Your task to perform on an android device: Clear all items from cart on walmart.com. Image 0: 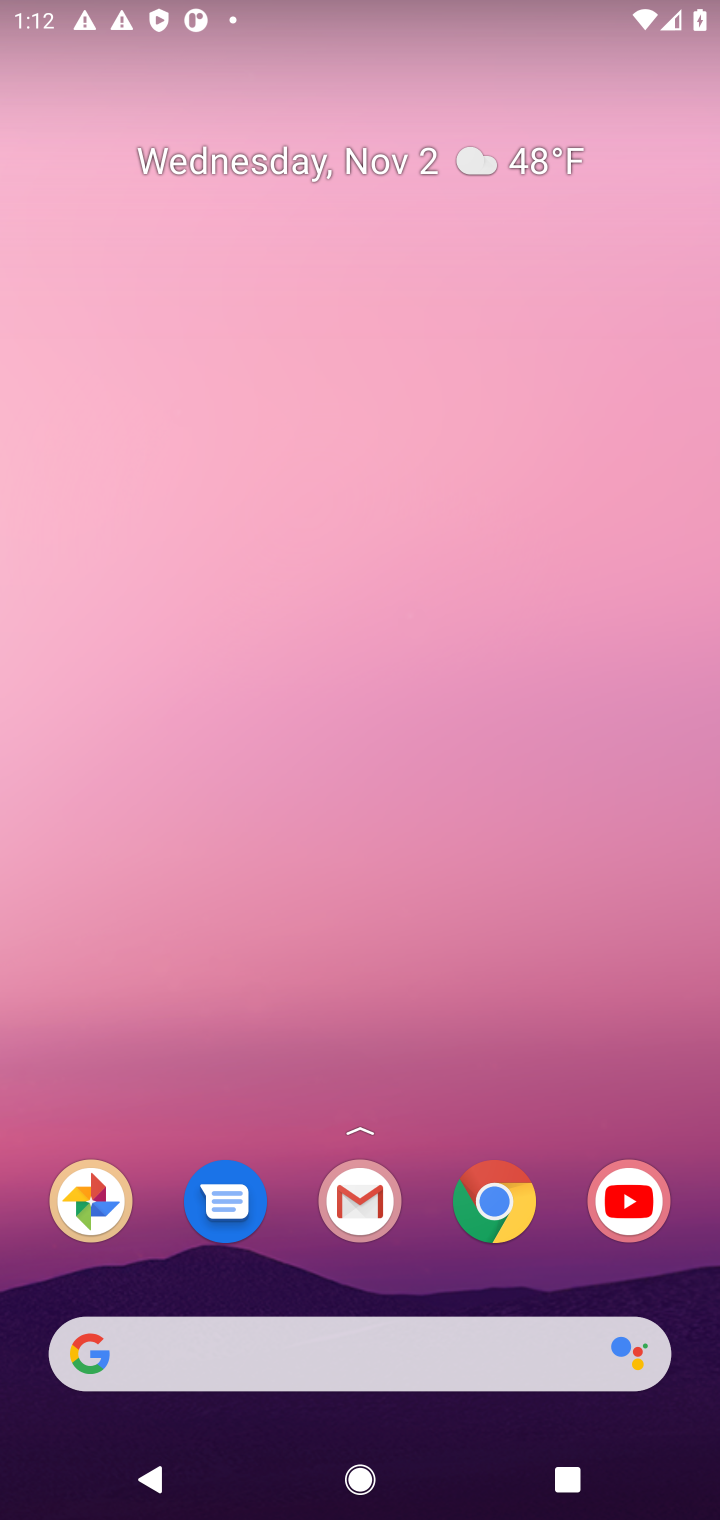
Step 0: click (499, 1215)
Your task to perform on an android device: Clear all items from cart on walmart.com. Image 1: 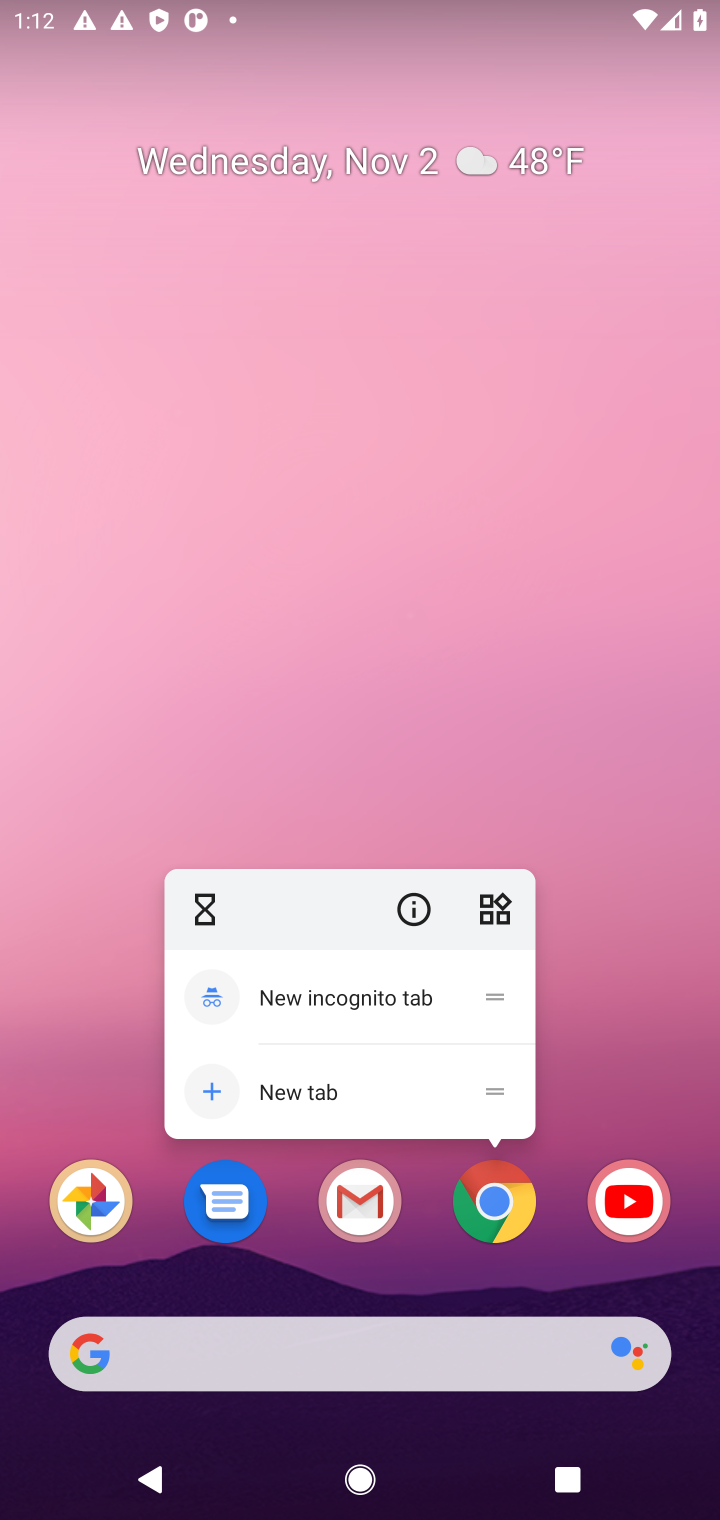
Step 1: click (499, 1215)
Your task to perform on an android device: Clear all items from cart on walmart.com. Image 2: 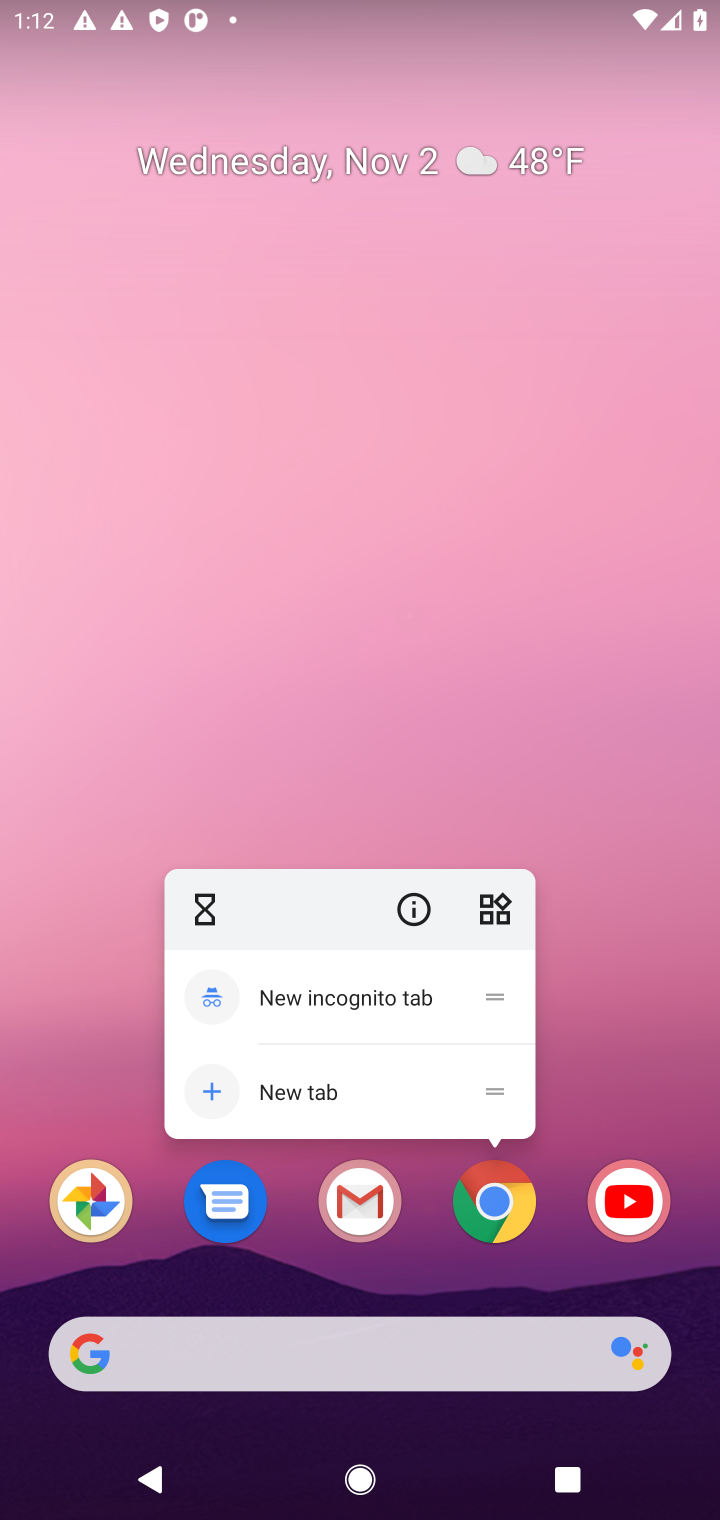
Step 2: click (499, 1215)
Your task to perform on an android device: Clear all items from cart on walmart.com. Image 3: 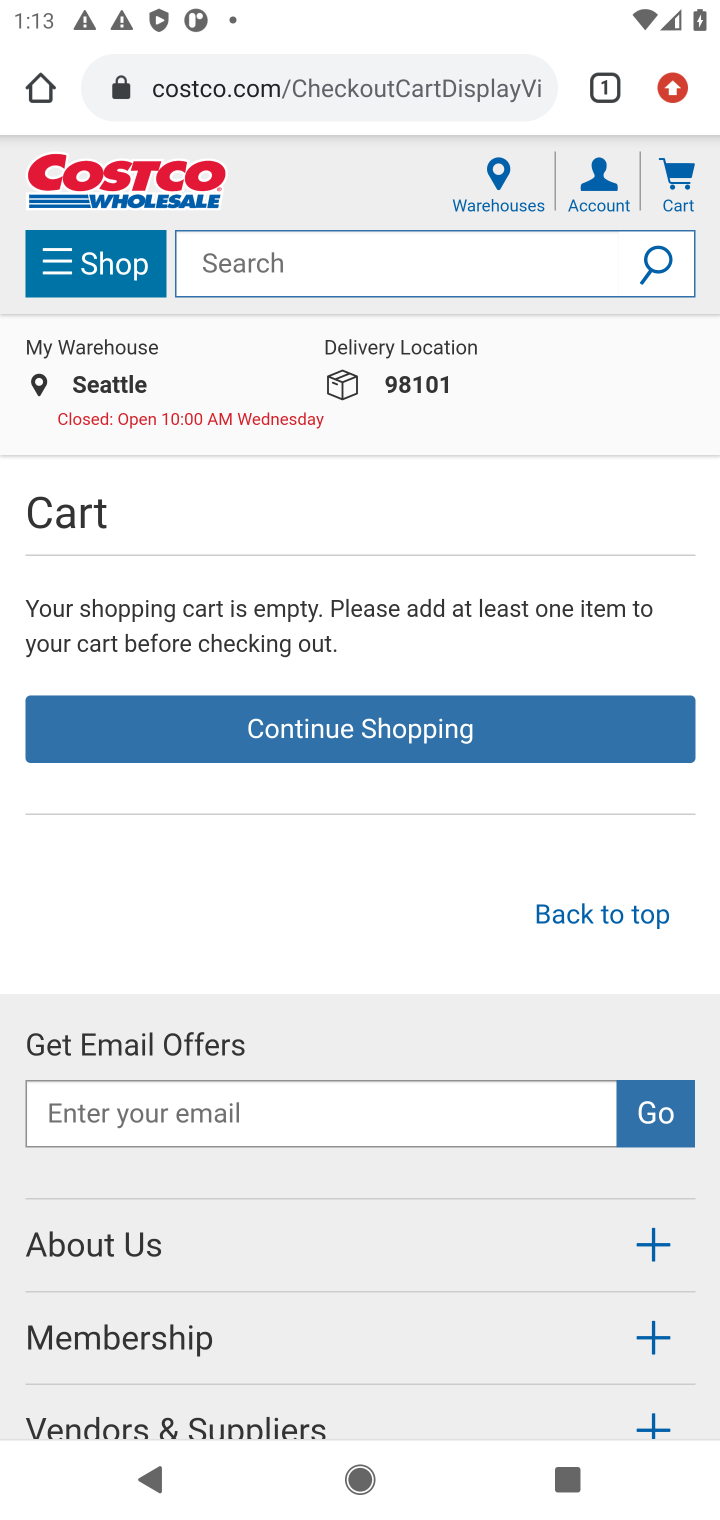
Step 3: click (370, 81)
Your task to perform on an android device: Clear all items from cart on walmart.com. Image 4: 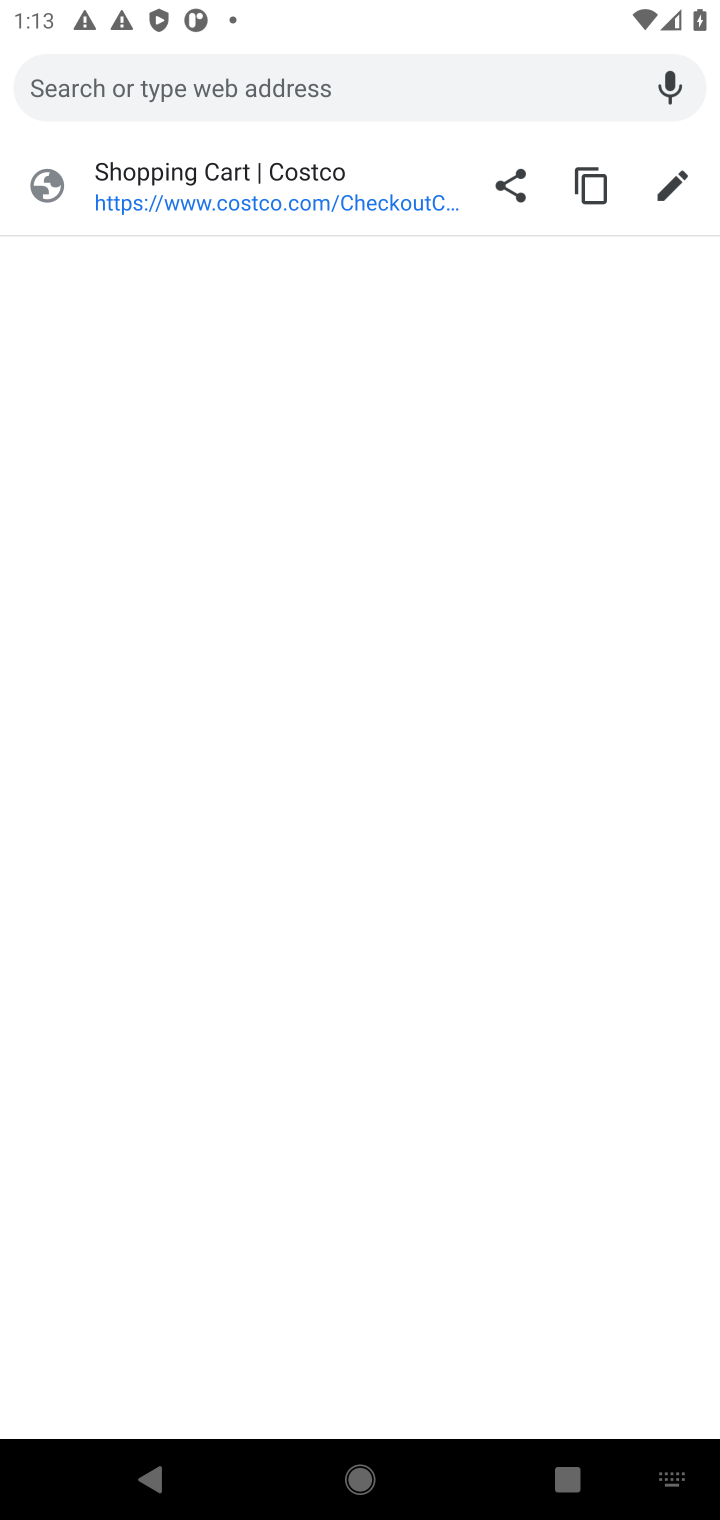
Step 4: type "walmart.com"
Your task to perform on an android device: Clear all items from cart on walmart.com. Image 5: 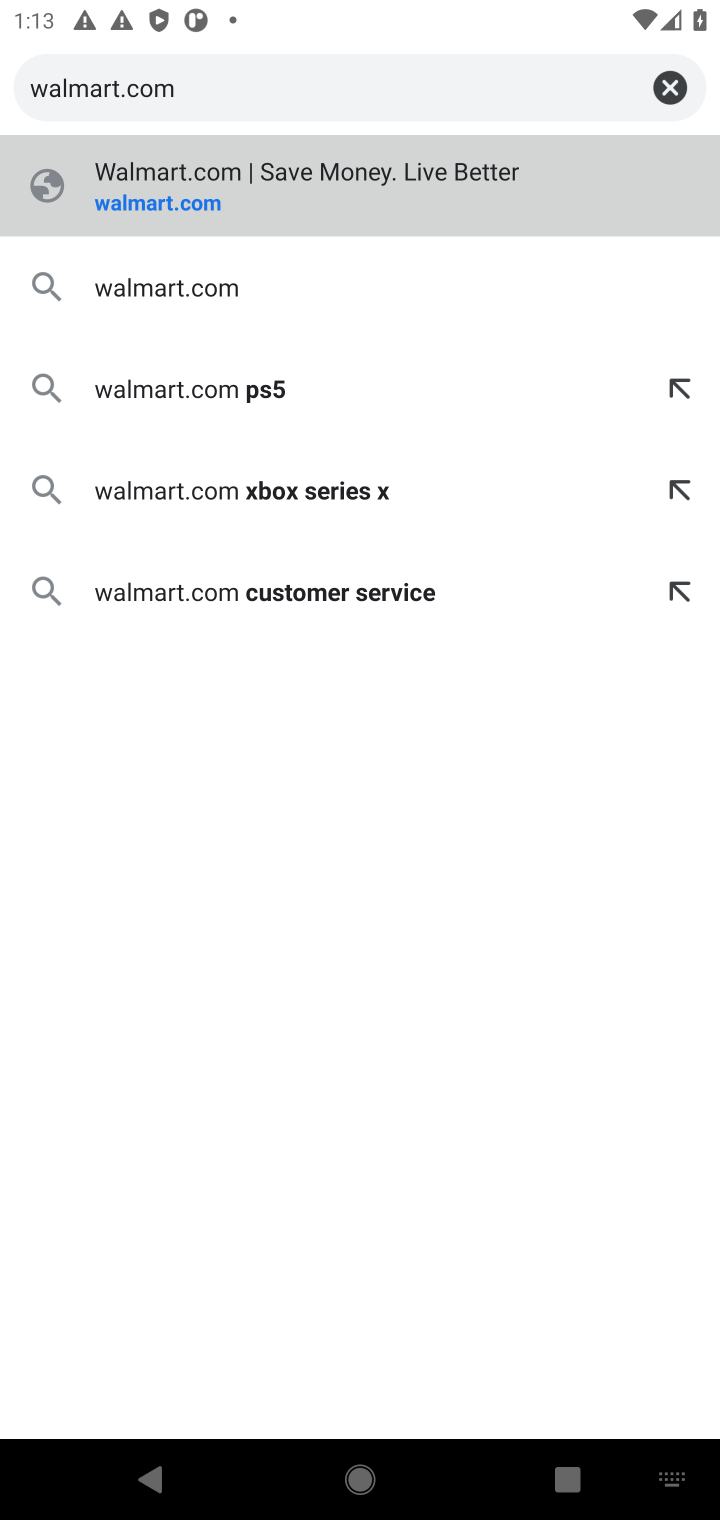
Step 5: press enter
Your task to perform on an android device: Clear all items from cart on walmart.com. Image 6: 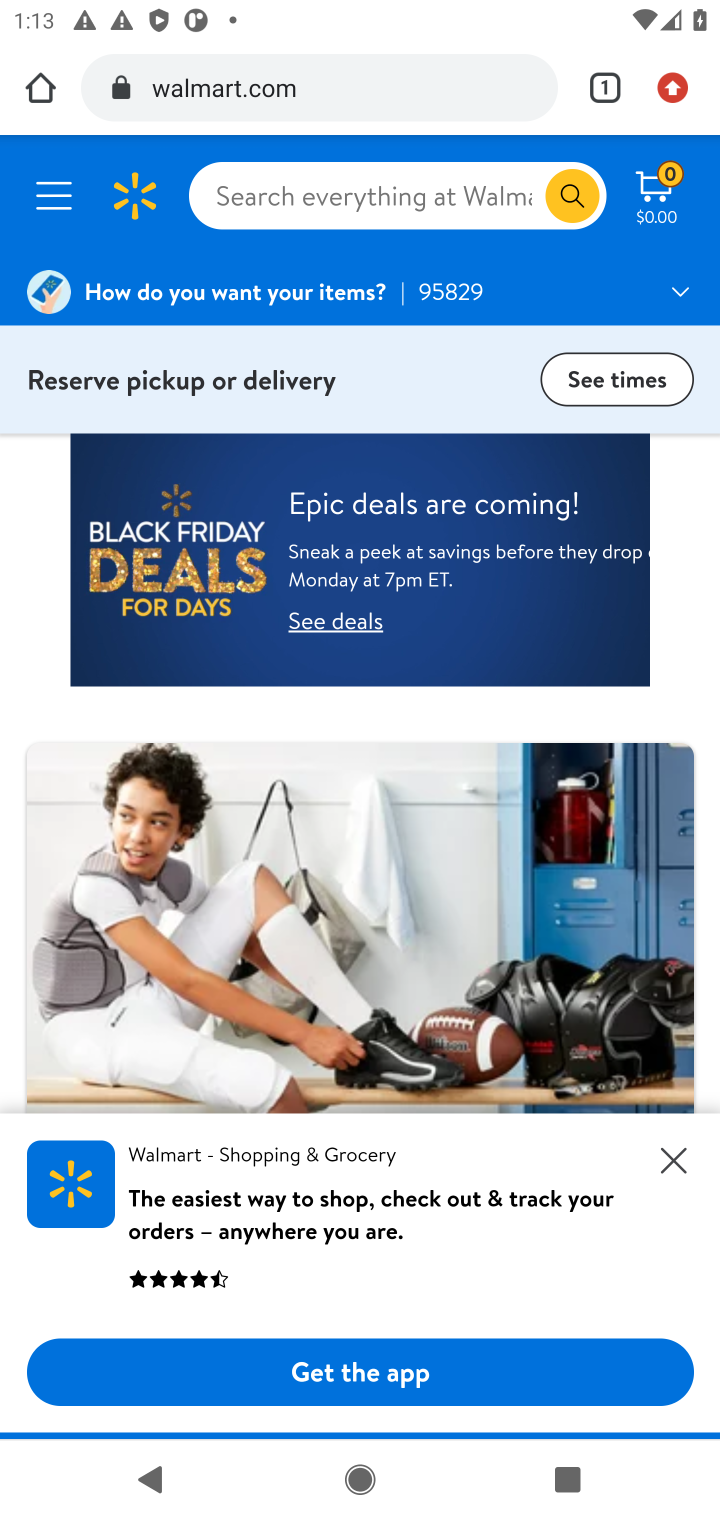
Step 6: click (649, 196)
Your task to perform on an android device: Clear all items from cart on walmart.com. Image 7: 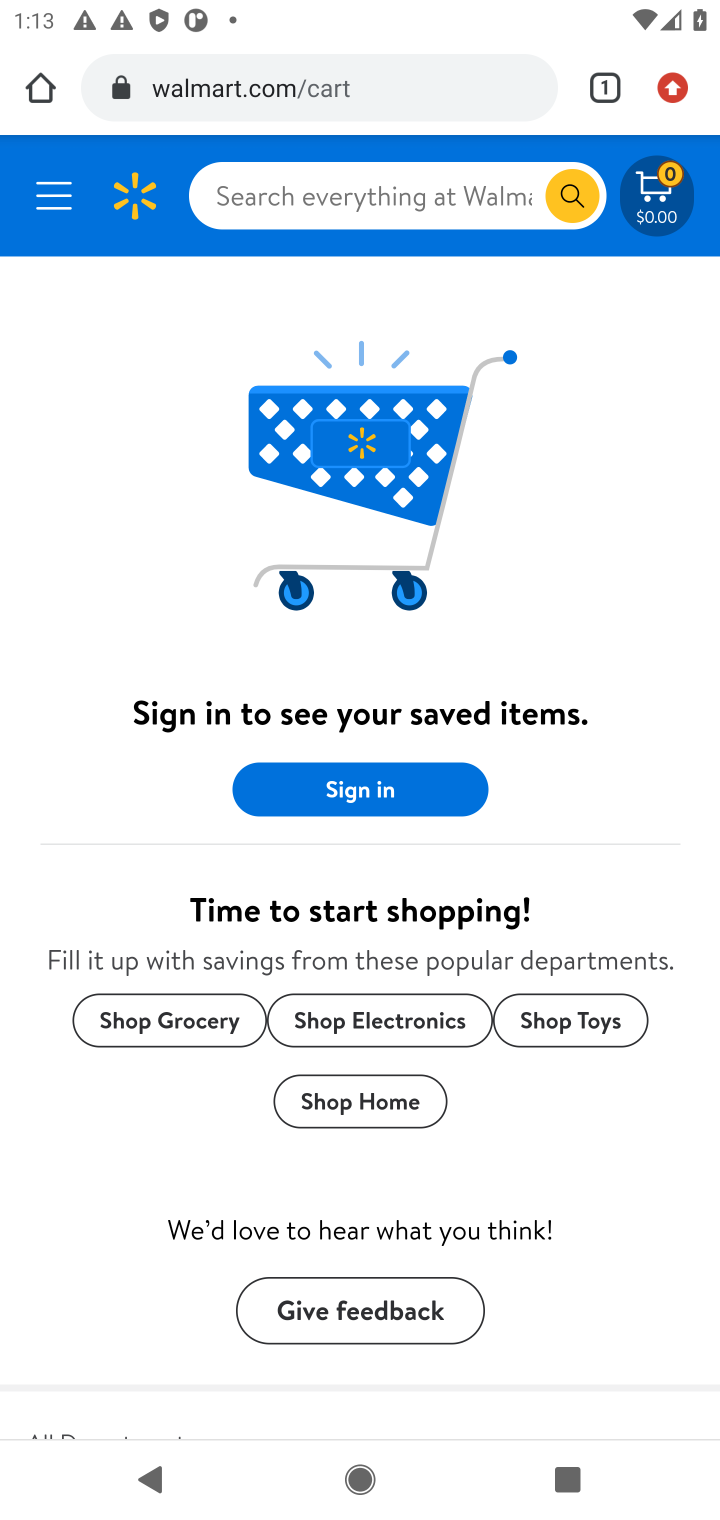
Step 7: task complete